Your task to perform on an android device: turn on location history Image 0: 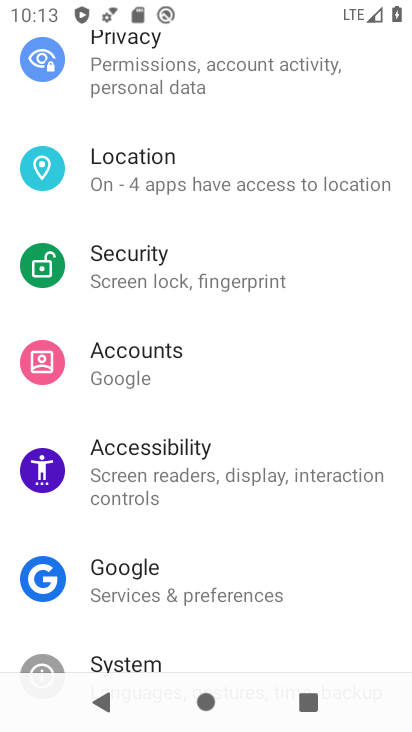
Step 0: click (216, 172)
Your task to perform on an android device: turn on location history Image 1: 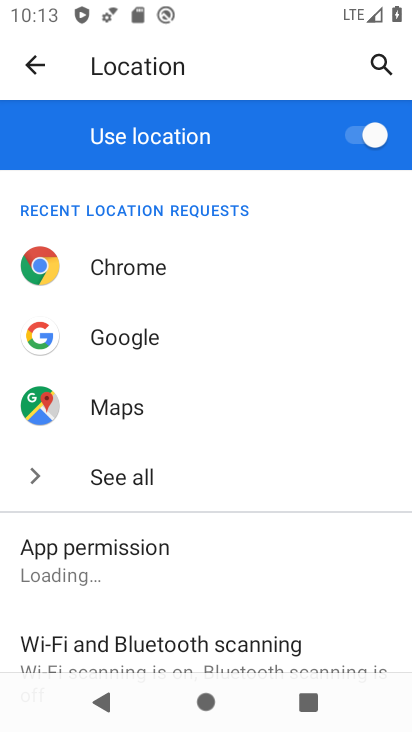
Step 1: drag from (82, 613) to (118, 404)
Your task to perform on an android device: turn on location history Image 2: 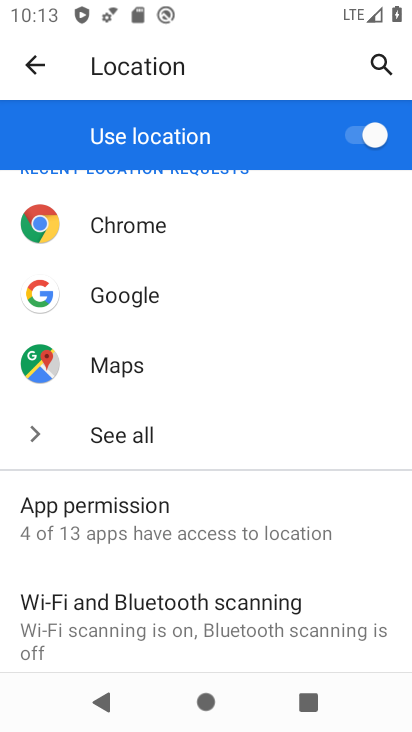
Step 2: drag from (88, 574) to (141, 314)
Your task to perform on an android device: turn on location history Image 3: 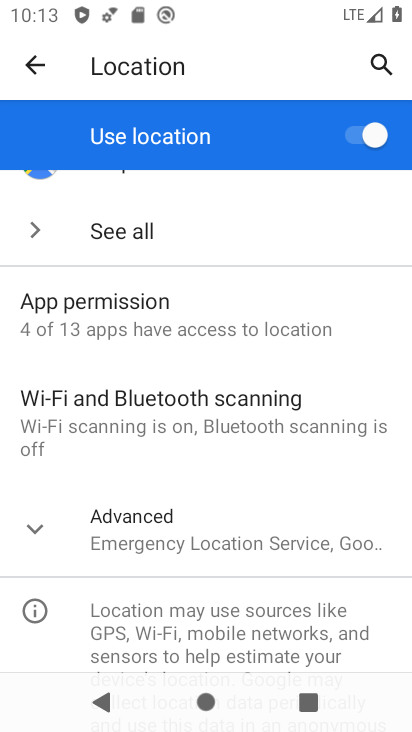
Step 3: click (164, 532)
Your task to perform on an android device: turn on location history Image 4: 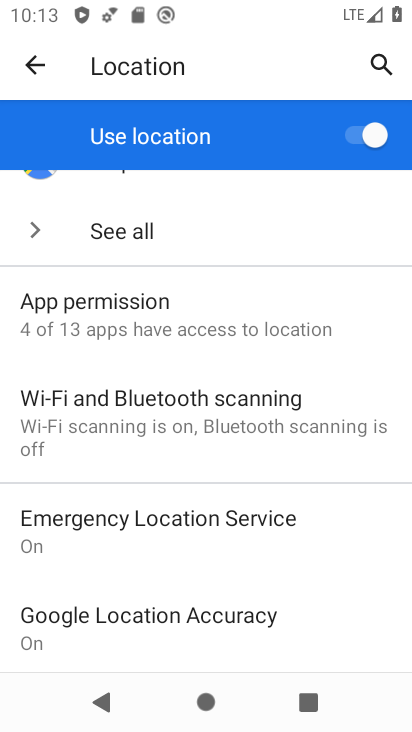
Step 4: drag from (40, 572) to (108, 365)
Your task to perform on an android device: turn on location history Image 5: 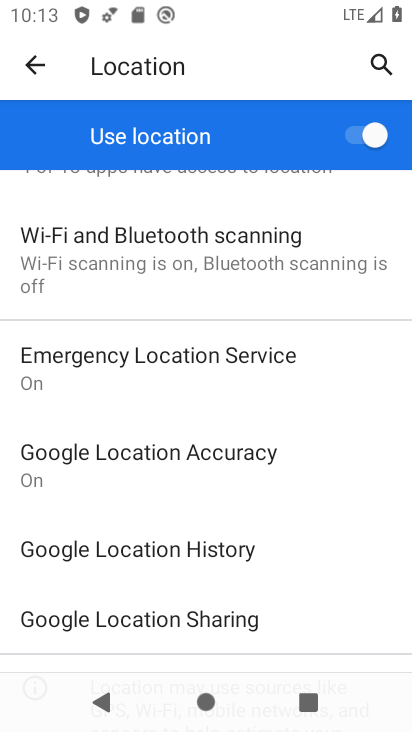
Step 5: click (91, 550)
Your task to perform on an android device: turn on location history Image 6: 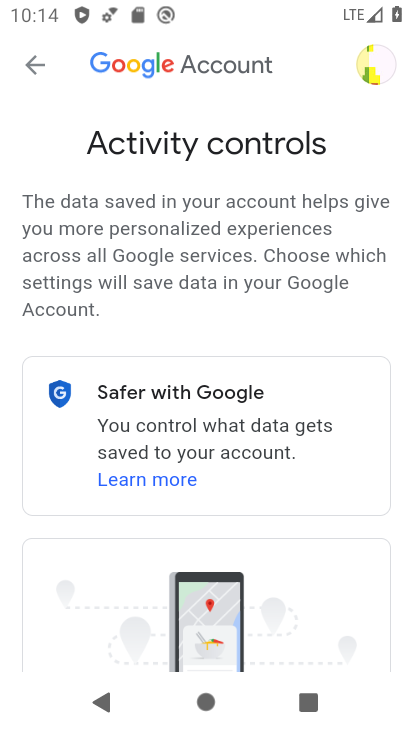
Step 6: task complete